Your task to perform on an android device: check battery use Image 0: 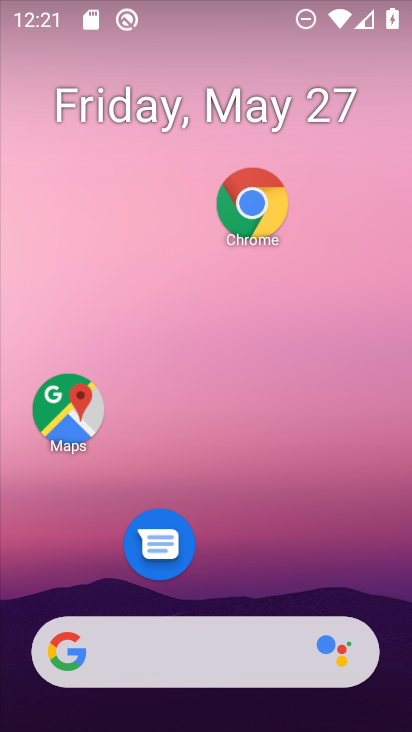
Step 0: drag from (212, 597) to (255, 186)
Your task to perform on an android device: check battery use Image 1: 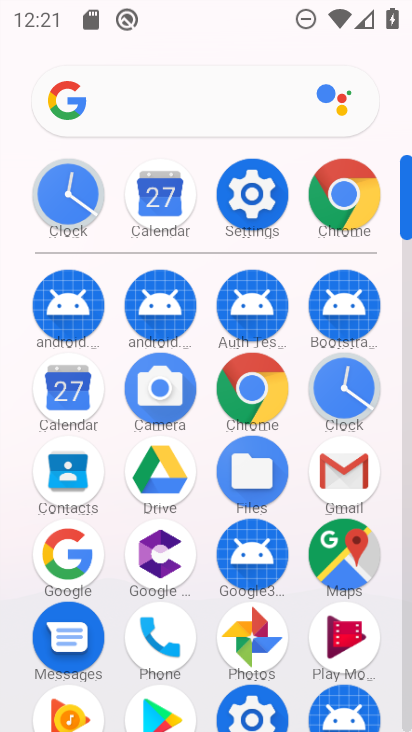
Step 1: click (252, 171)
Your task to perform on an android device: check battery use Image 2: 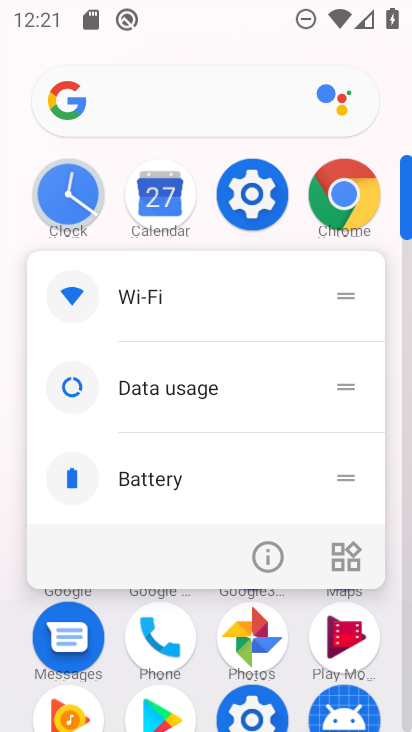
Step 2: click (269, 553)
Your task to perform on an android device: check battery use Image 3: 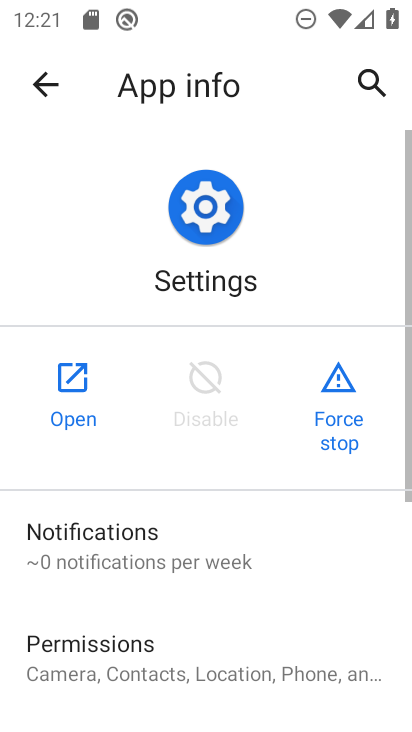
Step 3: click (85, 391)
Your task to perform on an android device: check battery use Image 4: 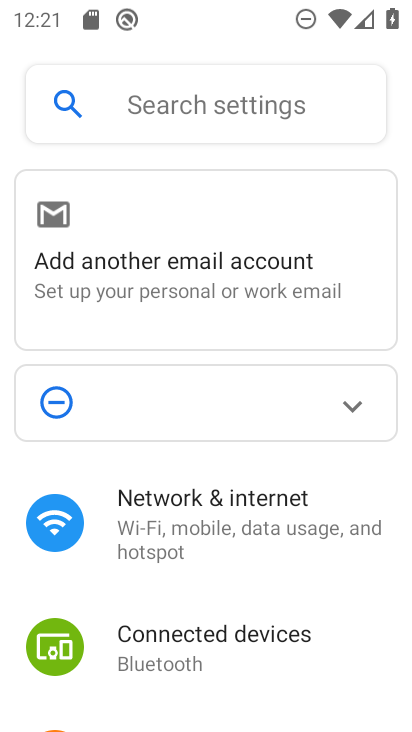
Step 4: drag from (179, 639) to (209, 267)
Your task to perform on an android device: check battery use Image 5: 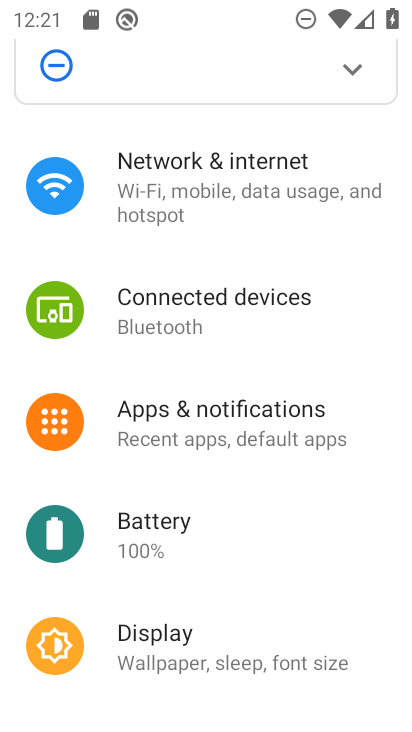
Step 5: drag from (209, 571) to (248, 311)
Your task to perform on an android device: check battery use Image 6: 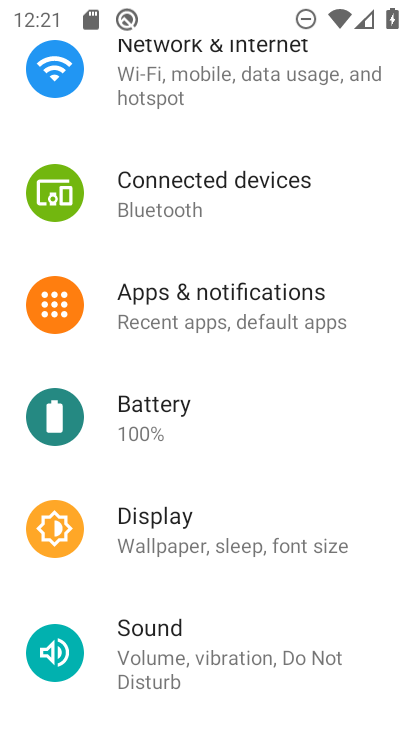
Step 6: click (196, 408)
Your task to perform on an android device: check battery use Image 7: 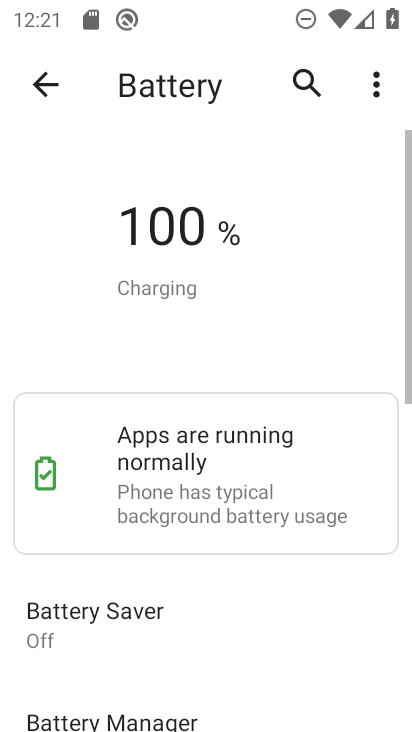
Step 7: drag from (236, 575) to (246, 238)
Your task to perform on an android device: check battery use Image 8: 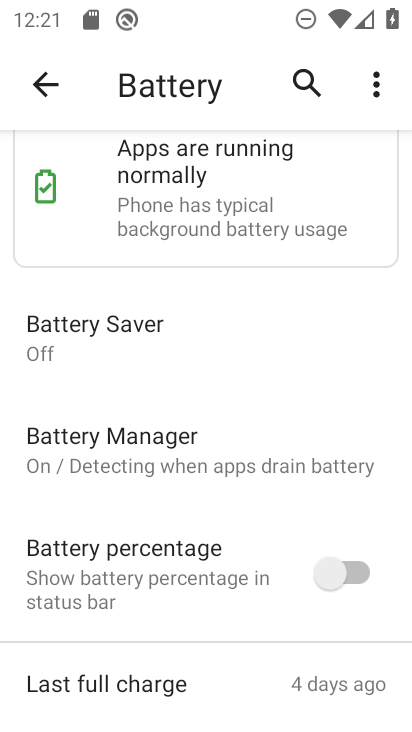
Step 8: drag from (224, 252) to (273, 726)
Your task to perform on an android device: check battery use Image 9: 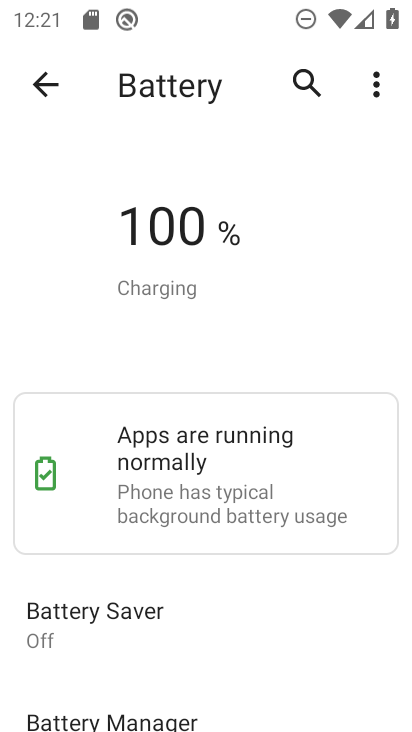
Step 9: click (375, 89)
Your task to perform on an android device: check battery use Image 10: 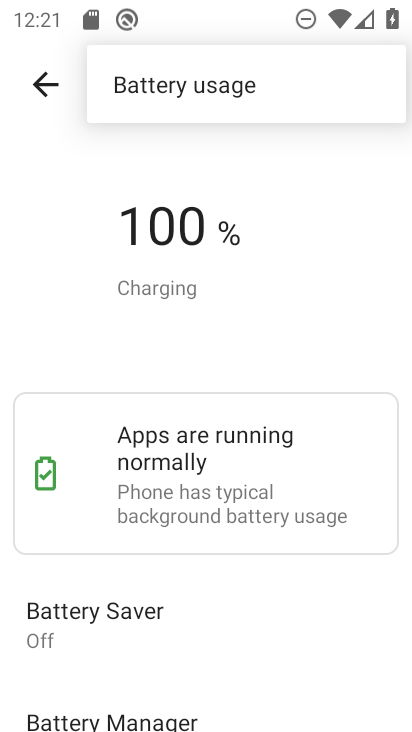
Step 10: click (242, 90)
Your task to perform on an android device: check battery use Image 11: 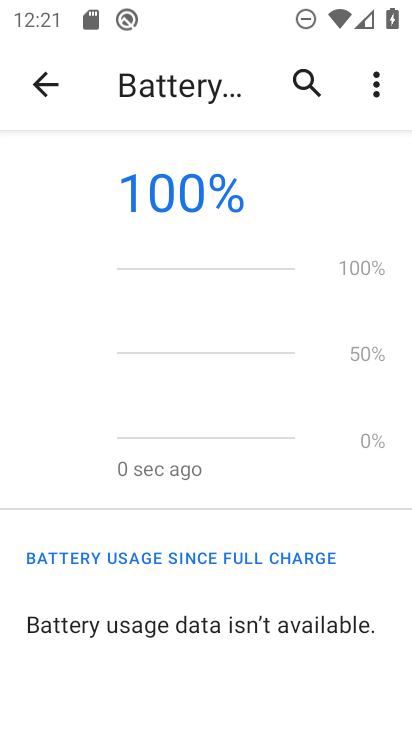
Step 11: task complete